Your task to perform on an android device: install app "Google Play services" Image 0: 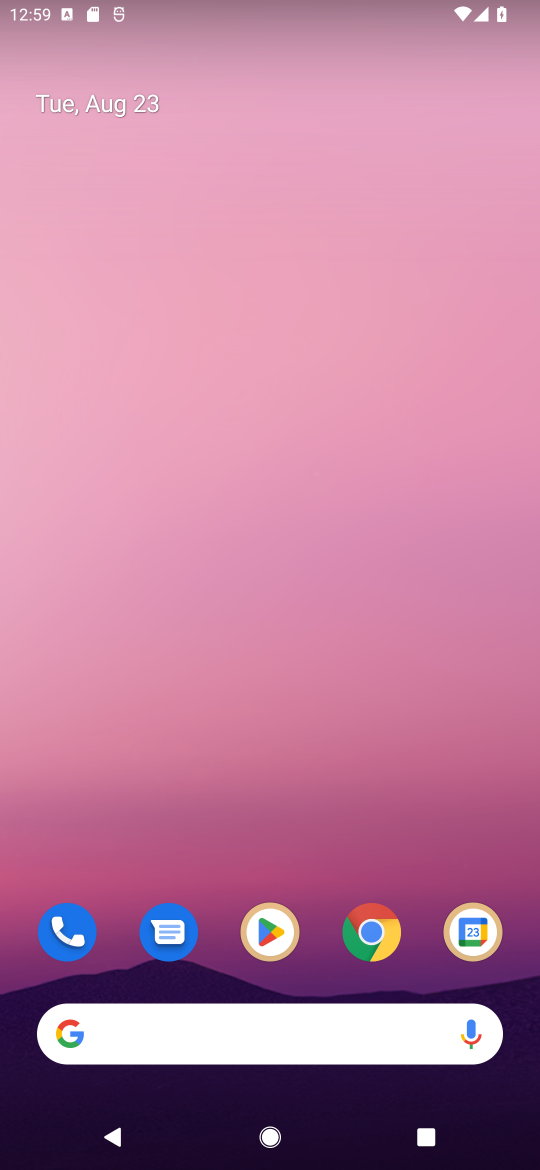
Step 0: click (260, 942)
Your task to perform on an android device: install app "Google Play services" Image 1: 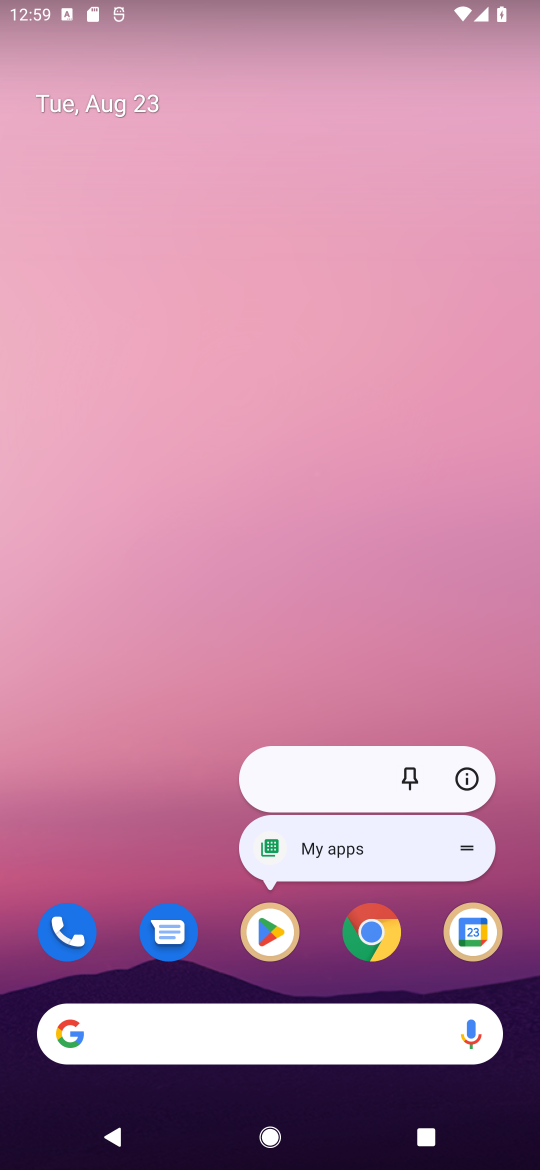
Step 1: click (266, 934)
Your task to perform on an android device: install app "Google Play services" Image 2: 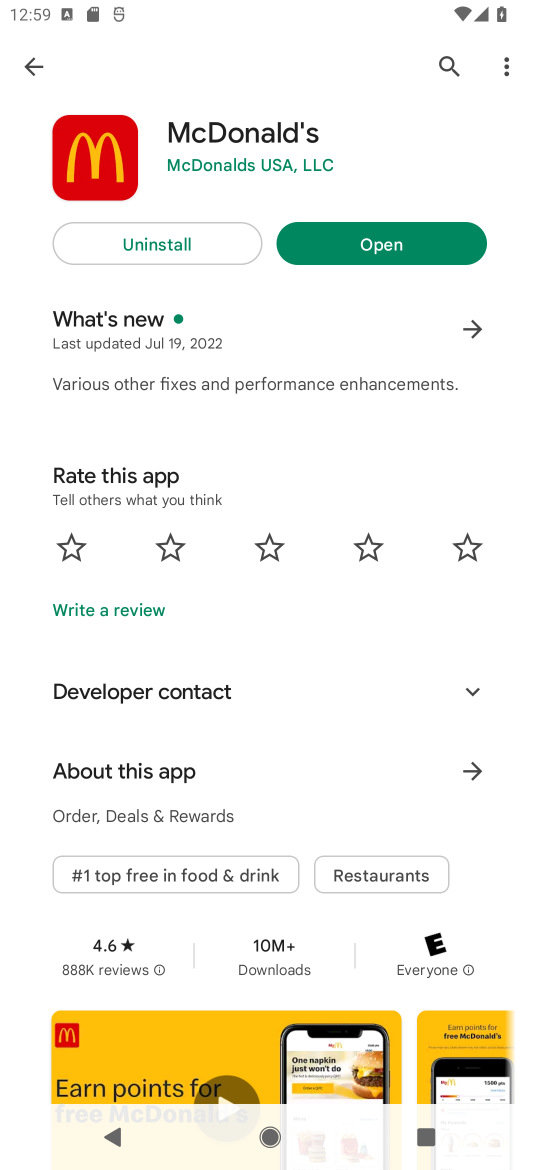
Step 2: click (443, 61)
Your task to perform on an android device: install app "Google Play services" Image 3: 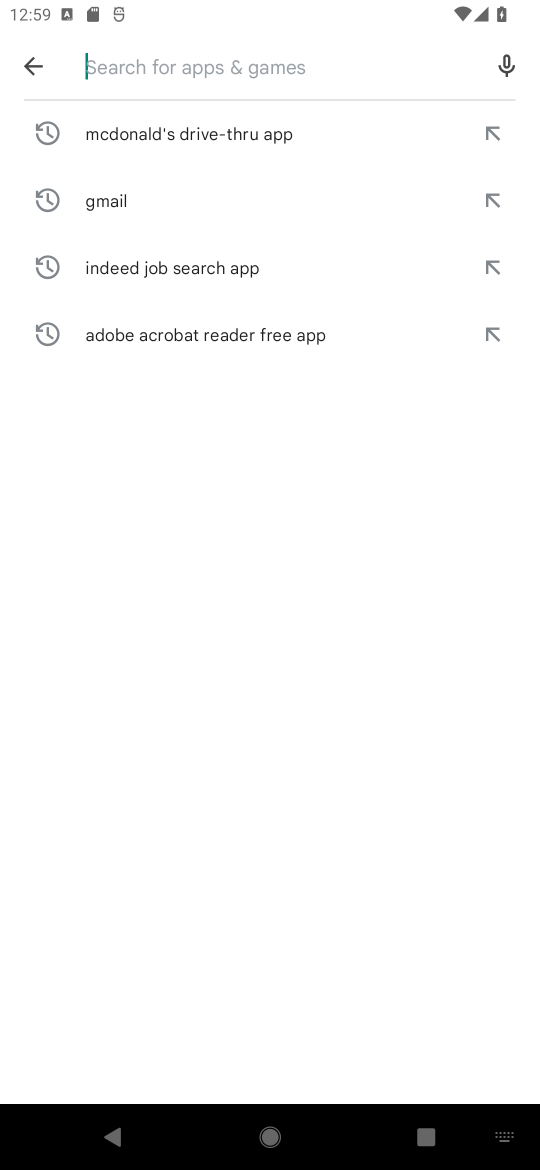
Step 3: click (123, 38)
Your task to perform on an android device: install app "Google Play services" Image 4: 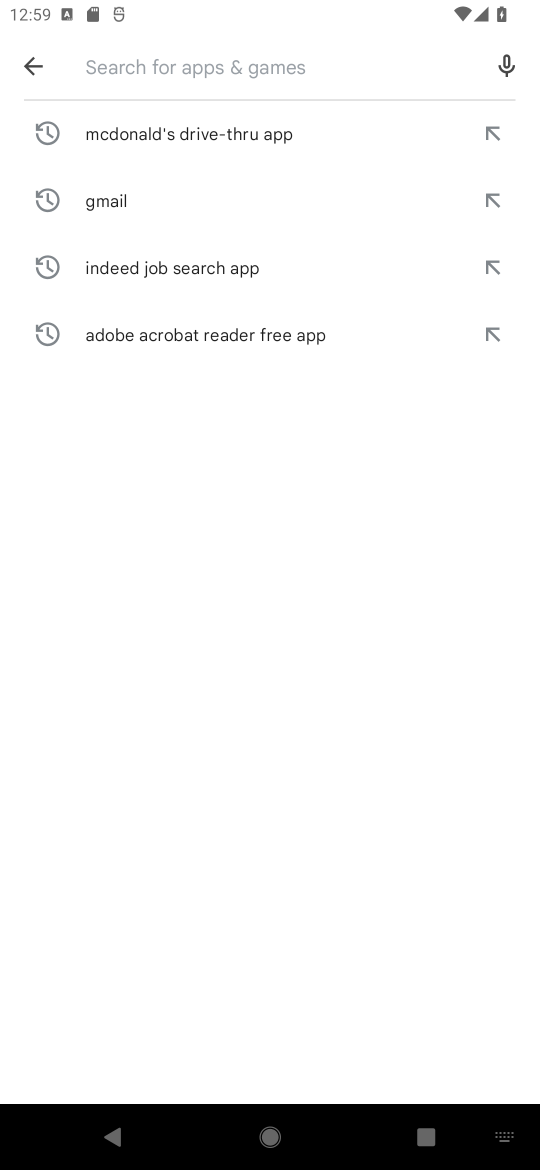
Step 4: type "Google Play services"
Your task to perform on an android device: install app "Google Play services" Image 5: 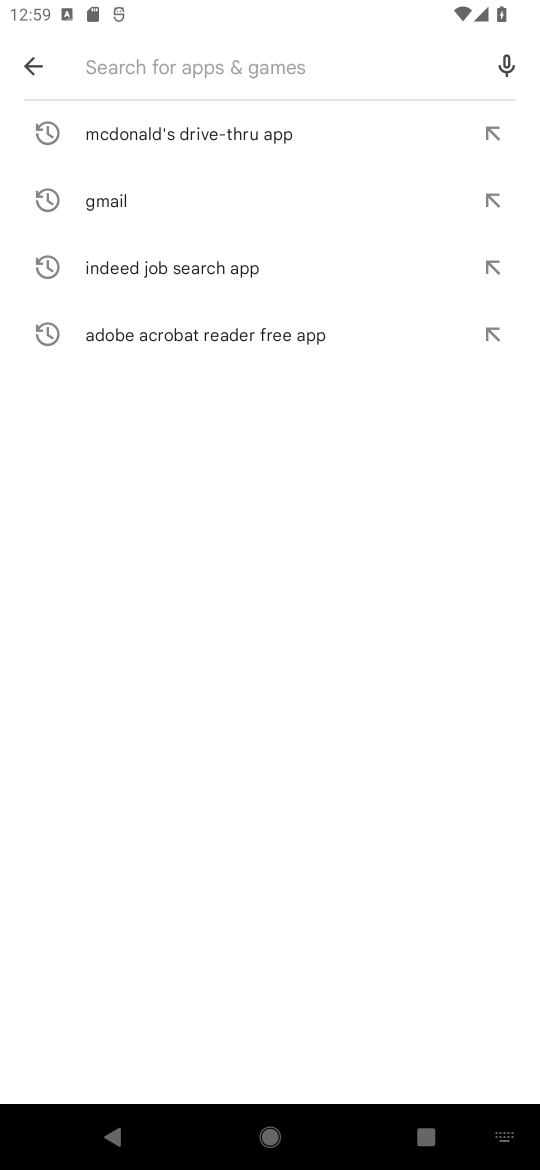
Step 5: click (427, 741)
Your task to perform on an android device: install app "Google Play services" Image 6: 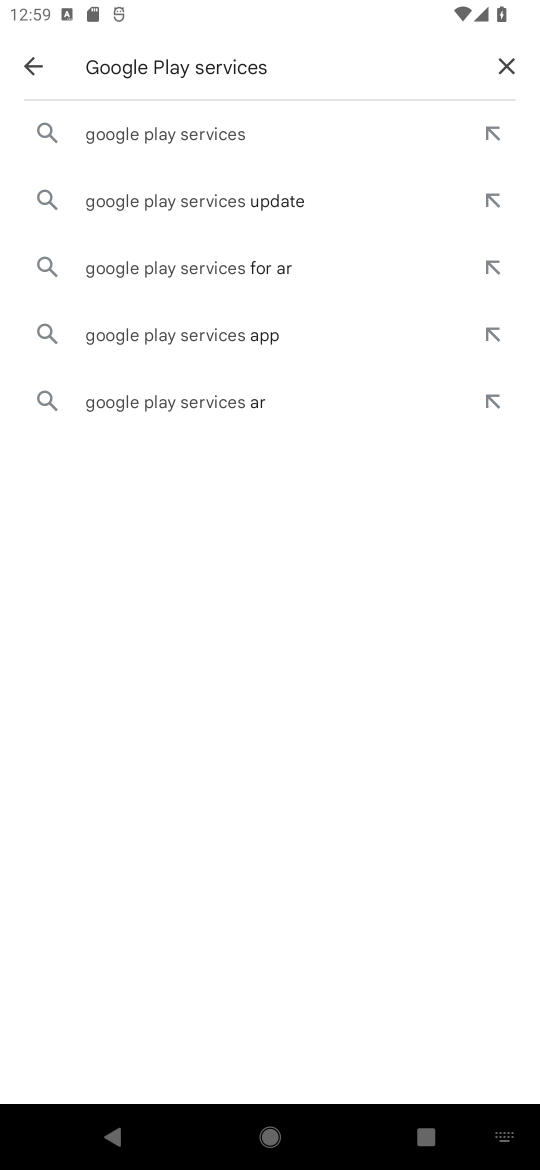
Step 6: click (204, 113)
Your task to perform on an android device: install app "Google Play services" Image 7: 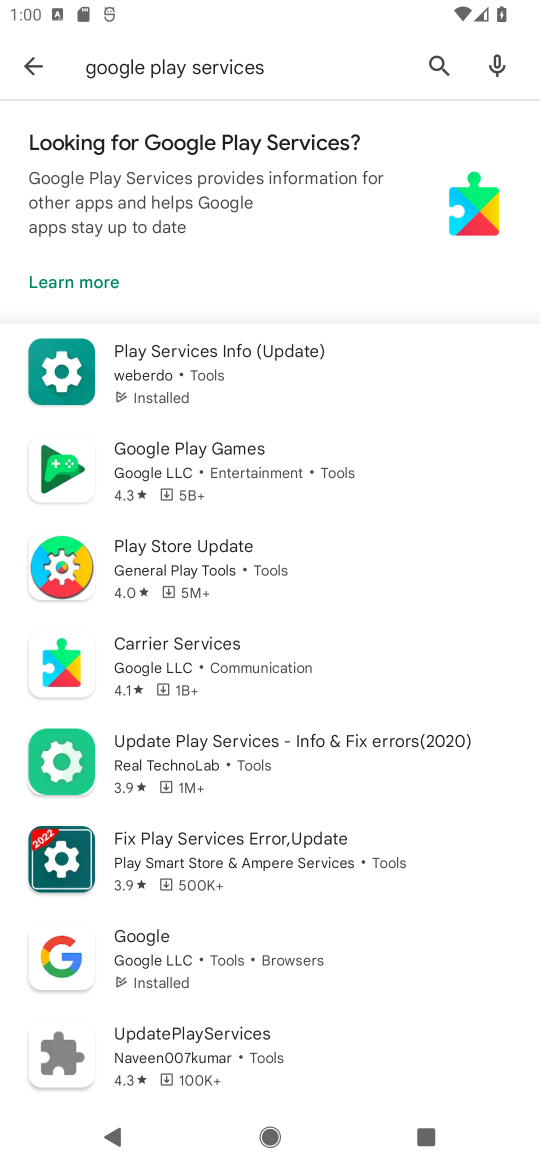
Step 7: task complete